Your task to perform on an android device: turn on notifications settings in the gmail app Image 0: 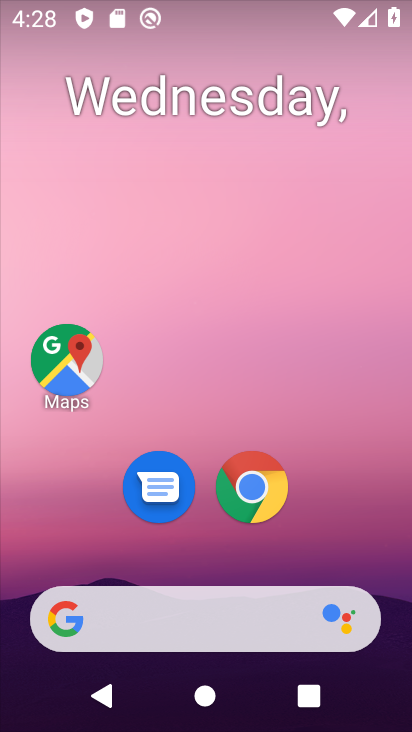
Step 0: drag from (211, 557) to (238, 87)
Your task to perform on an android device: turn on notifications settings in the gmail app Image 1: 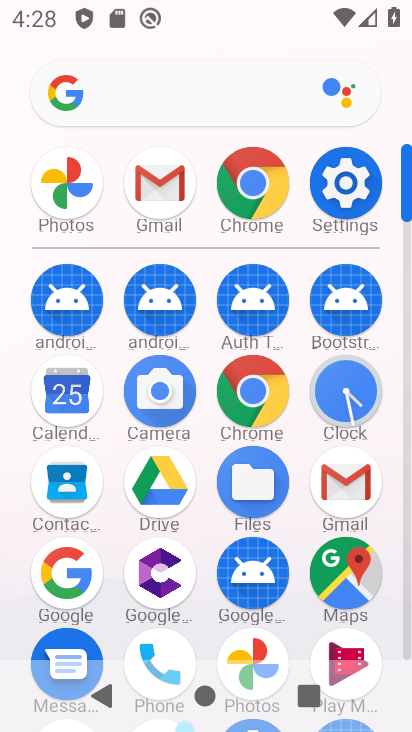
Step 1: click (347, 479)
Your task to perform on an android device: turn on notifications settings in the gmail app Image 2: 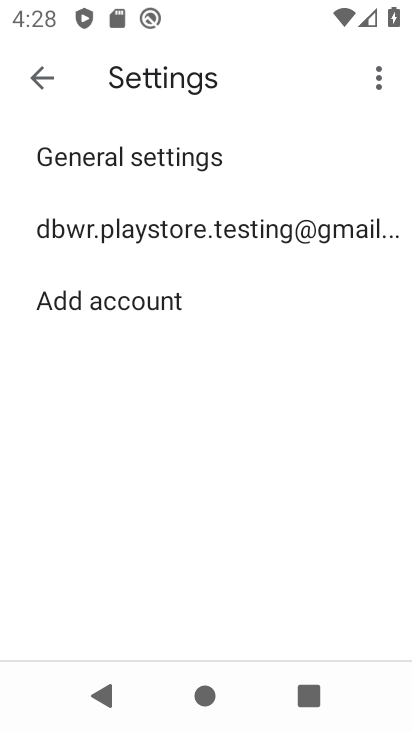
Step 2: click (191, 151)
Your task to perform on an android device: turn on notifications settings in the gmail app Image 3: 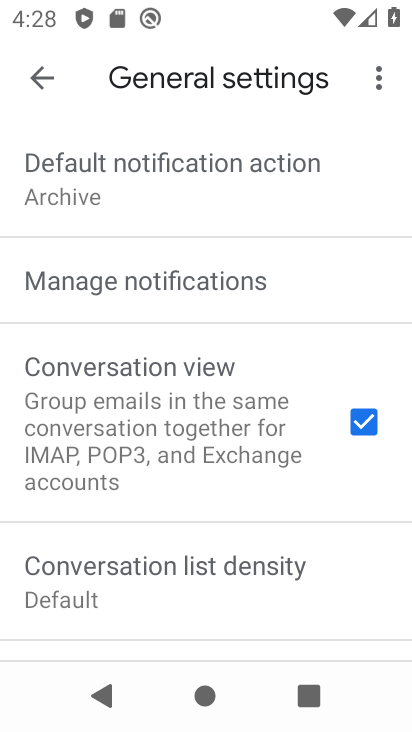
Step 3: click (216, 303)
Your task to perform on an android device: turn on notifications settings in the gmail app Image 4: 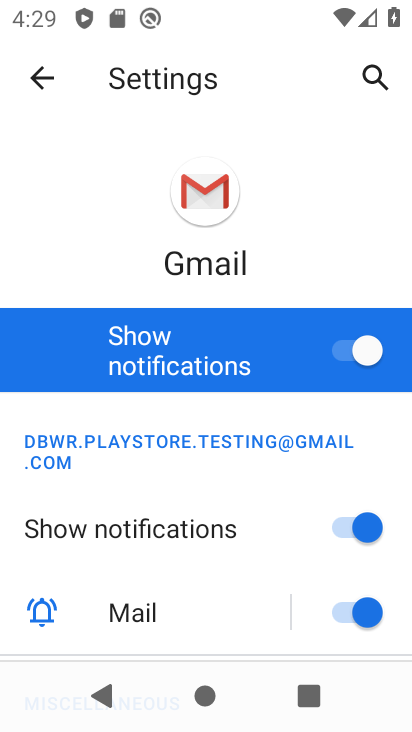
Step 4: task complete